Your task to perform on an android device: Open display settings Image 0: 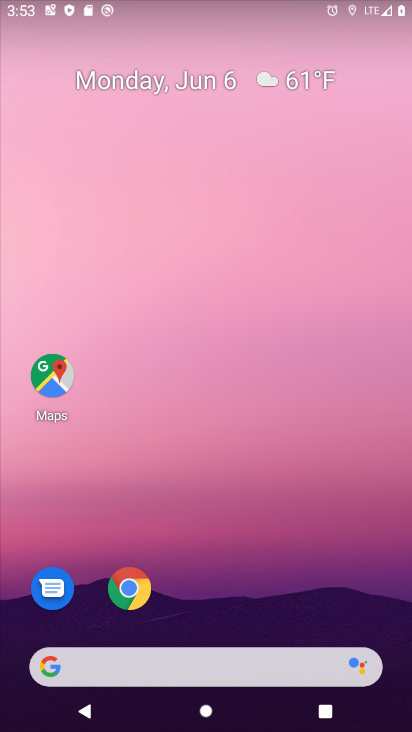
Step 0: drag from (232, 614) to (171, 157)
Your task to perform on an android device: Open display settings Image 1: 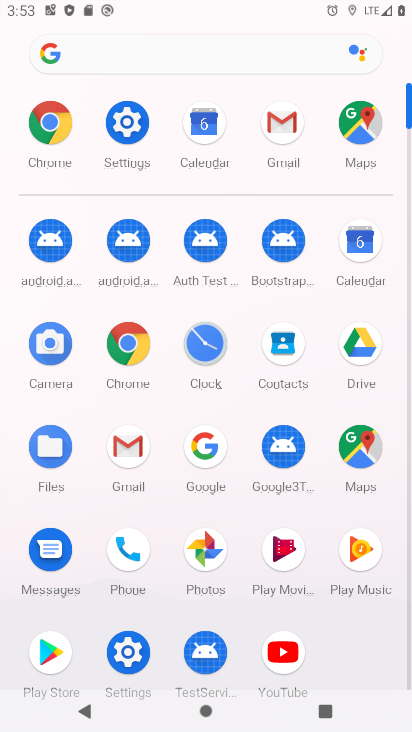
Step 1: click (126, 669)
Your task to perform on an android device: Open display settings Image 2: 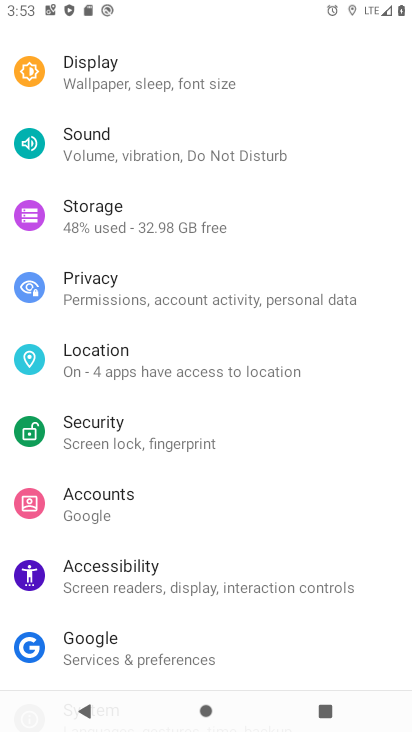
Step 2: click (122, 82)
Your task to perform on an android device: Open display settings Image 3: 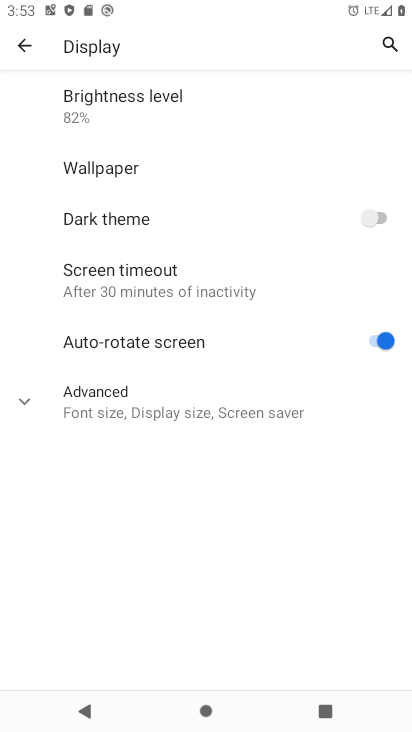
Step 3: task complete